Your task to perform on an android device: turn vacation reply on in the gmail app Image 0: 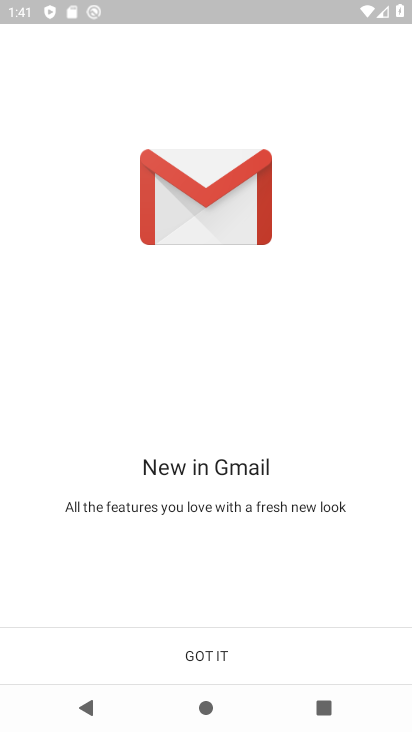
Step 0: click (207, 662)
Your task to perform on an android device: turn vacation reply on in the gmail app Image 1: 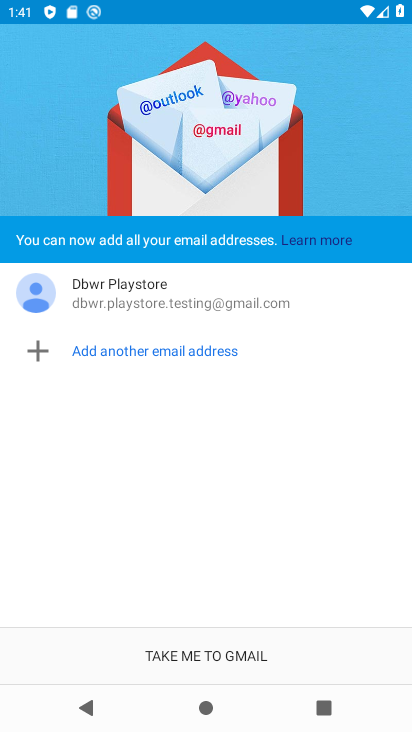
Step 1: click (251, 657)
Your task to perform on an android device: turn vacation reply on in the gmail app Image 2: 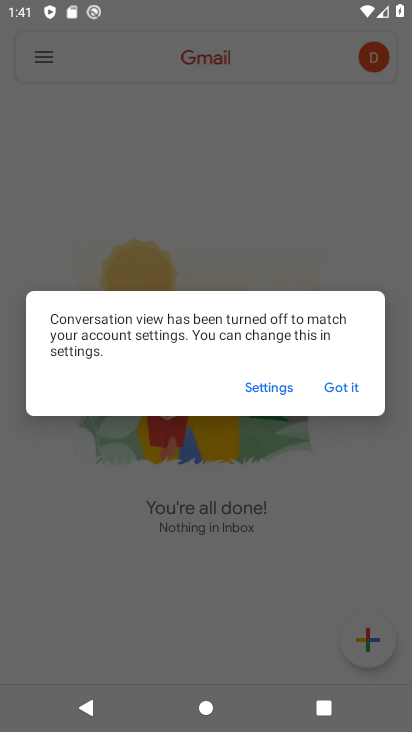
Step 2: click (347, 385)
Your task to perform on an android device: turn vacation reply on in the gmail app Image 3: 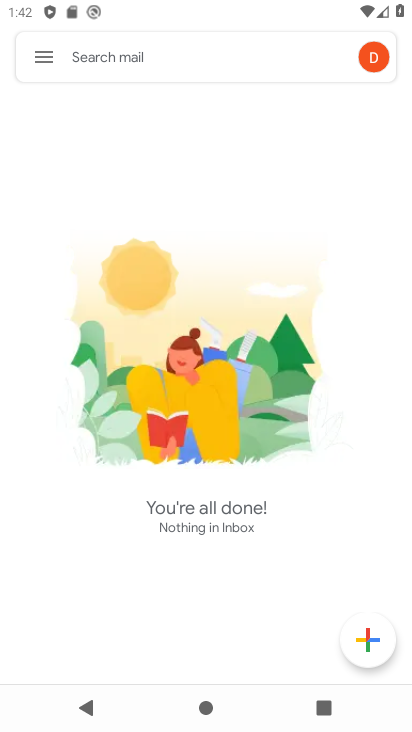
Step 3: click (49, 52)
Your task to perform on an android device: turn vacation reply on in the gmail app Image 4: 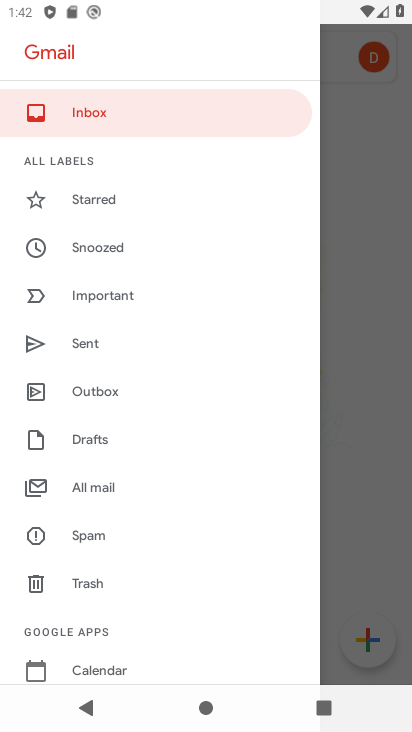
Step 4: click (118, 485)
Your task to perform on an android device: turn vacation reply on in the gmail app Image 5: 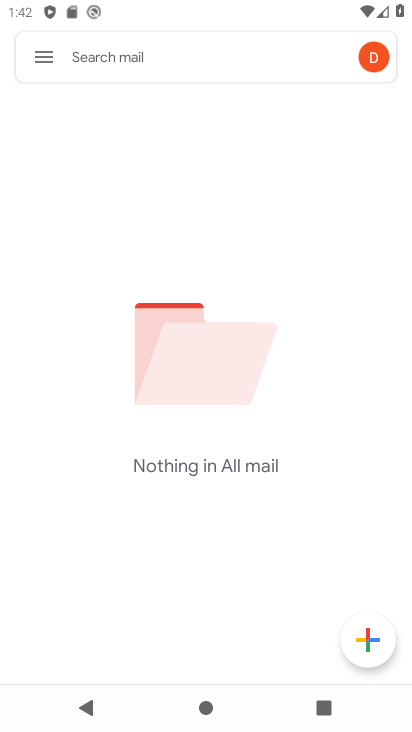
Step 5: click (52, 60)
Your task to perform on an android device: turn vacation reply on in the gmail app Image 6: 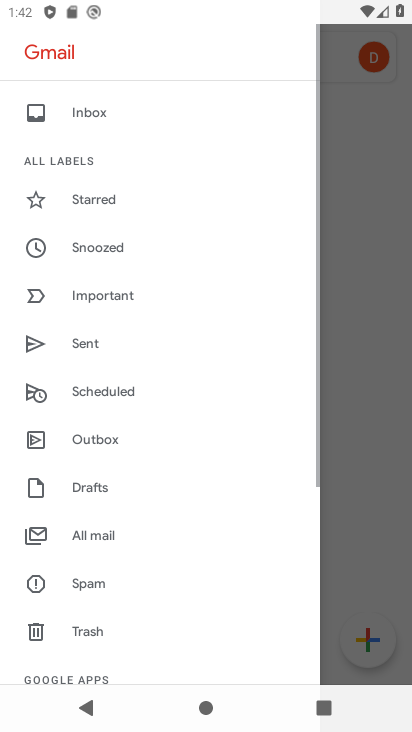
Step 6: drag from (130, 546) to (161, 189)
Your task to perform on an android device: turn vacation reply on in the gmail app Image 7: 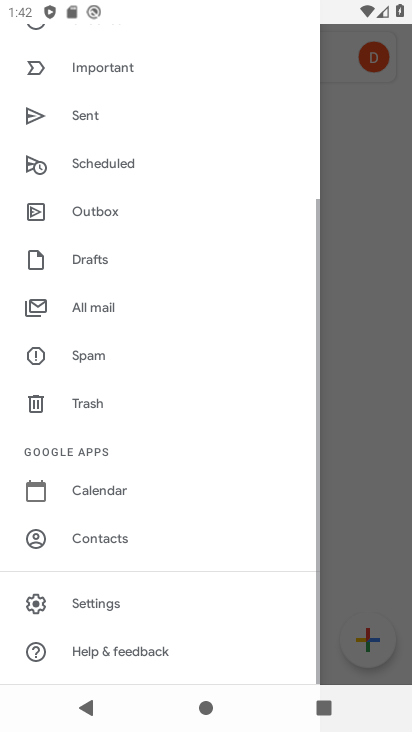
Step 7: click (106, 590)
Your task to perform on an android device: turn vacation reply on in the gmail app Image 8: 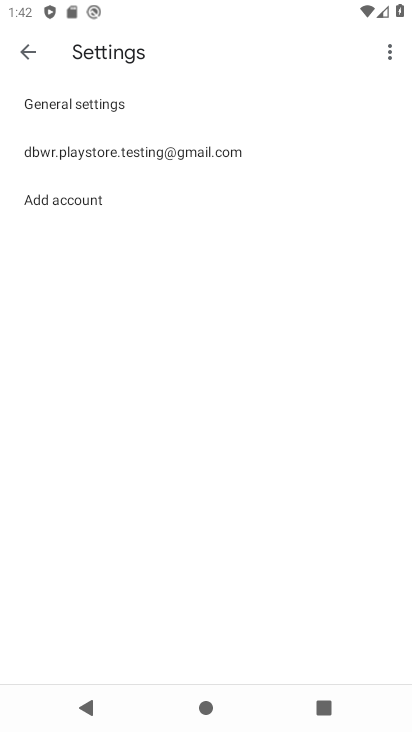
Step 8: click (114, 152)
Your task to perform on an android device: turn vacation reply on in the gmail app Image 9: 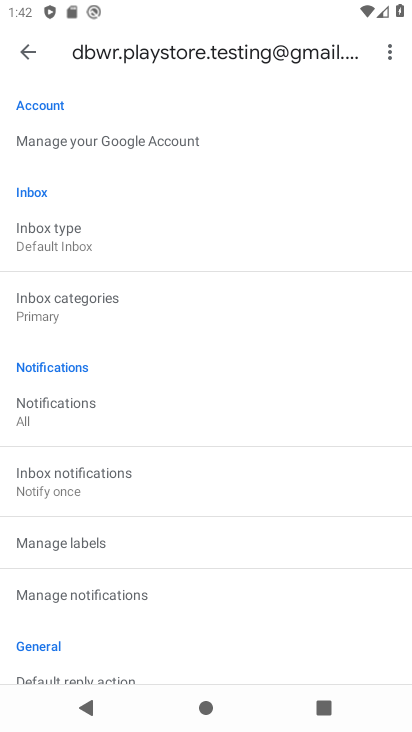
Step 9: drag from (190, 575) to (237, 289)
Your task to perform on an android device: turn vacation reply on in the gmail app Image 10: 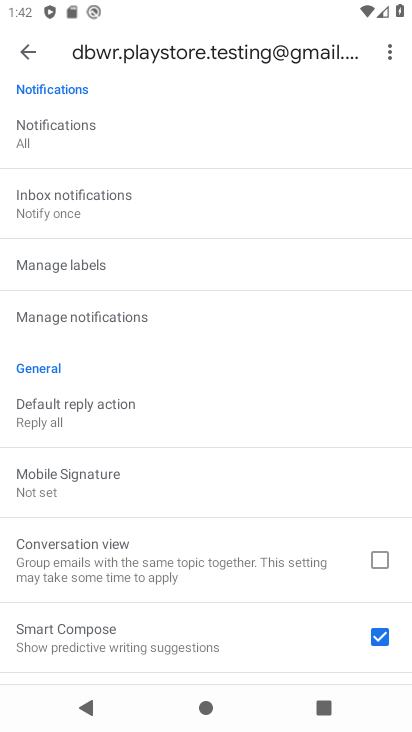
Step 10: drag from (180, 583) to (248, 188)
Your task to perform on an android device: turn vacation reply on in the gmail app Image 11: 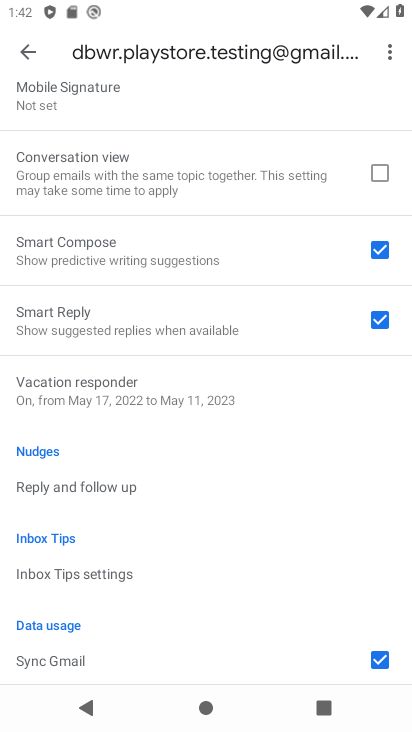
Step 11: drag from (140, 553) to (152, 508)
Your task to perform on an android device: turn vacation reply on in the gmail app Image 12: 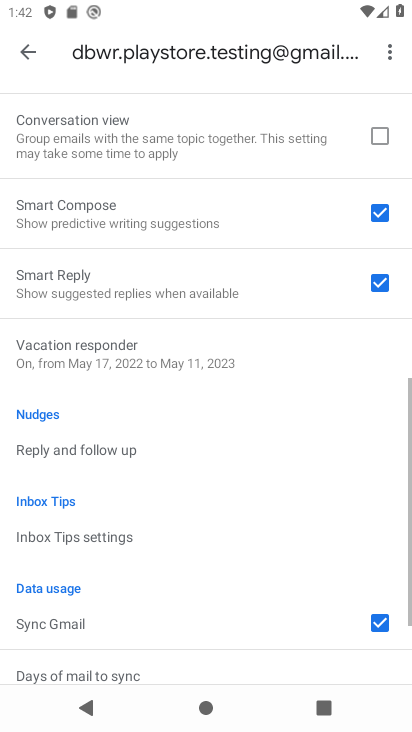
Step 12: click (193, 359)
Your task to perform on an android device: turn vacation reply on in the gmail app Image 13: 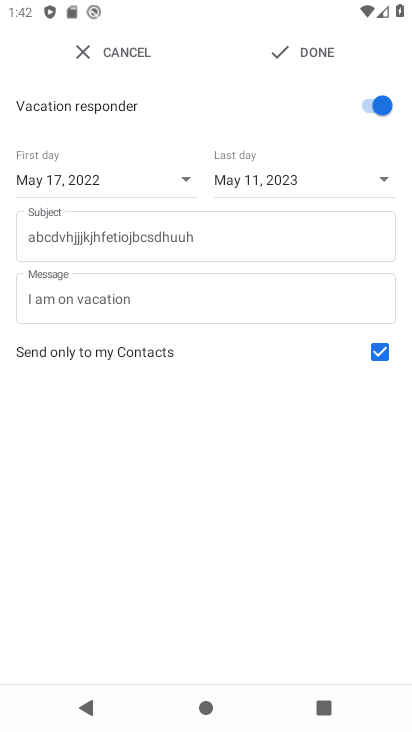
Step 13: task complete